Your task to perform on an android device: turn on wifi Image 0: 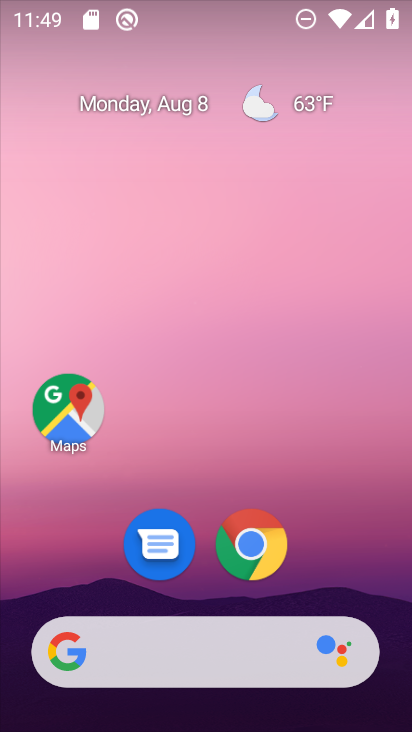
Step 0: drag from (196, 678) to (191, 111)
Your task to perform on an android device: turn on wifi Image 1: 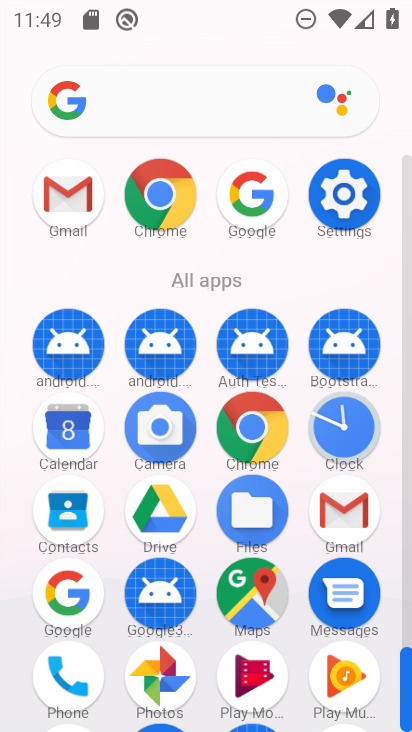
Step 1: click (344, 194)
Your task to perform on an android device: turn on wifi Image 2: 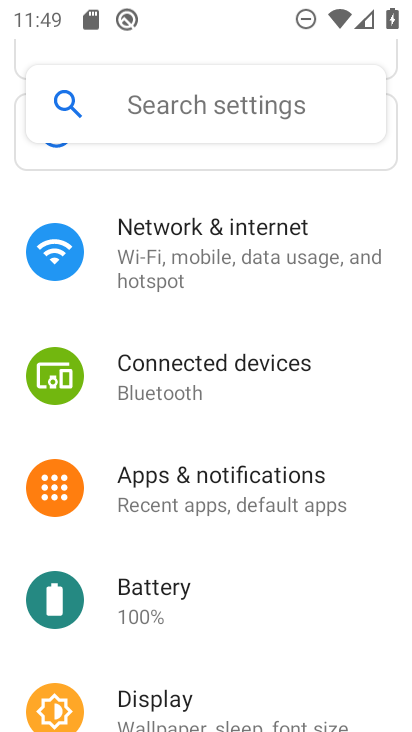
Step 2: click (249, 232)
Your task to perform on an android device: turn on wifi Image 3: 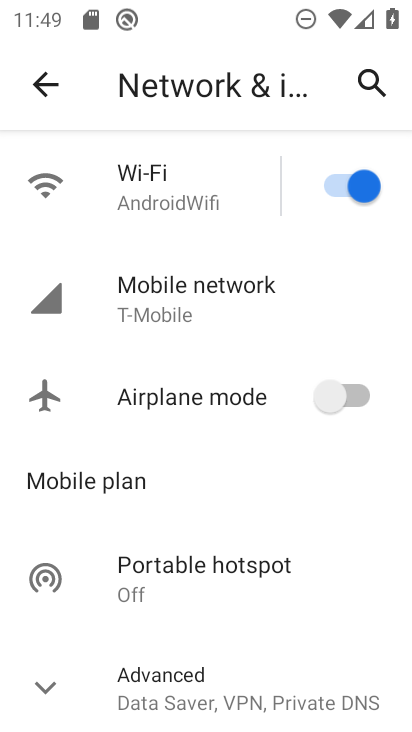
Step 3: task complete